Your task to perform on an android device: delete the emails in spam in the gmail app Image 0: 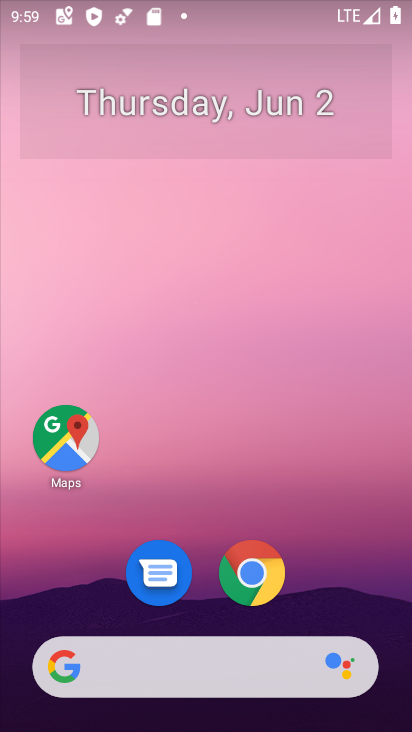
Step 0: drag from (370, 573) to (347, 52)
Your task to perform on an android device: delete the emails in spam in the gmail app Image 1: 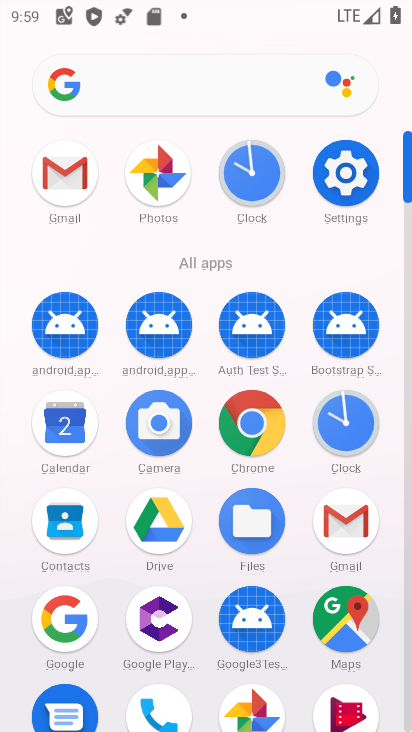
Step 1: click (72, 176)
Your task to perform on an android device: delete the emails in spam in the gmail app Image 2: 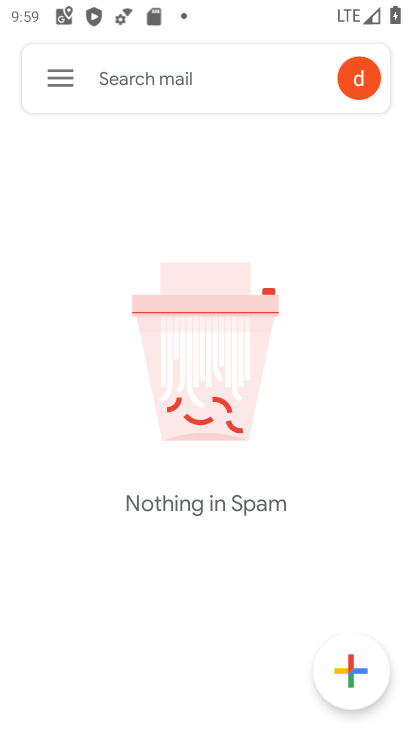
Step 2: click (58, 77)
Your task to perform on an android device: delete the emails in spam in the gmail app Image 3: 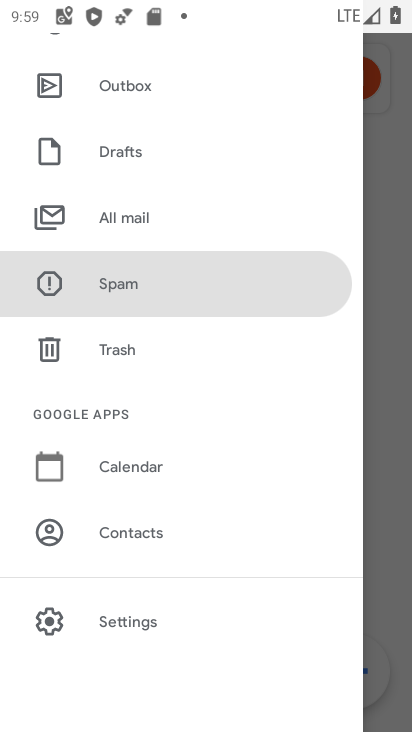
Step 3: click (121, 289)
Your task to perform on an android device: delete the emails in spam in the gmail app Image 4: 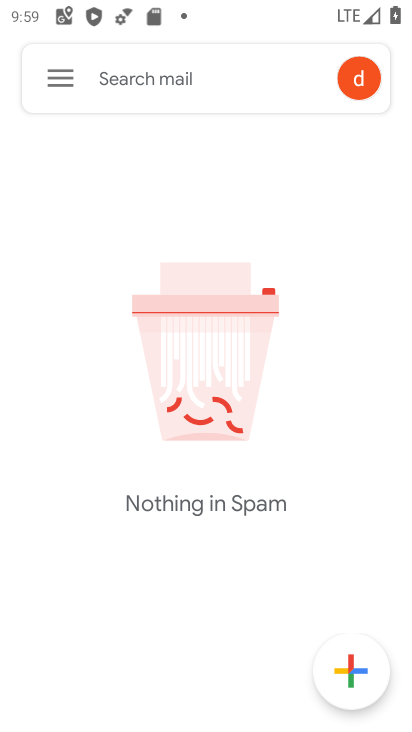
Step 4: task complete